Your task to perform on an android device: Go to notification settings Image 0: 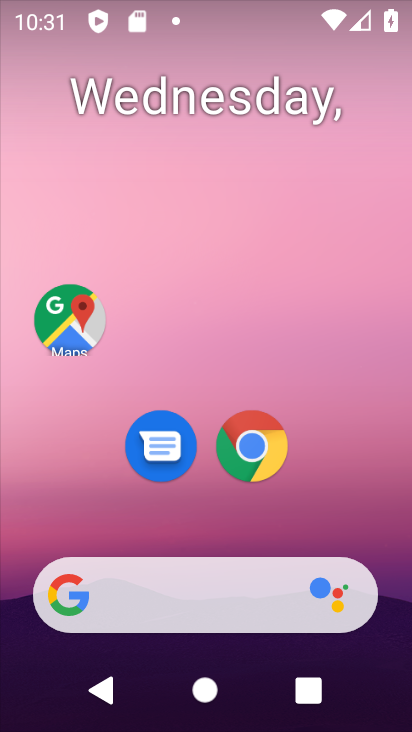
Step 0: drag from (95, 539) to (209, 85)
Your task to perform on an android device: Go to notification settings Image 1: 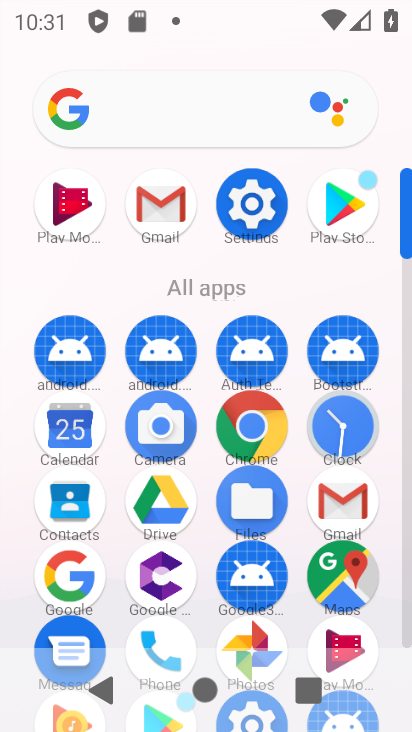
Step 1: drag from (196, 565) to (285, 283)
Your task to perform on an android device: Go to notification settings Image 2: 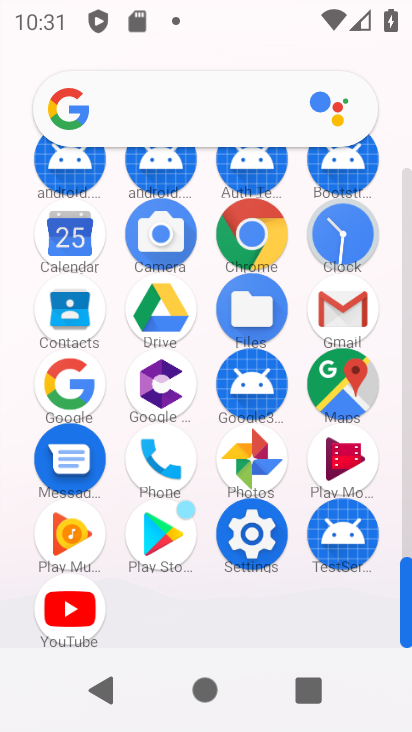
Step 2: click (269, 543)
Your task to perform on an android device: Go to notification settings Image 3: 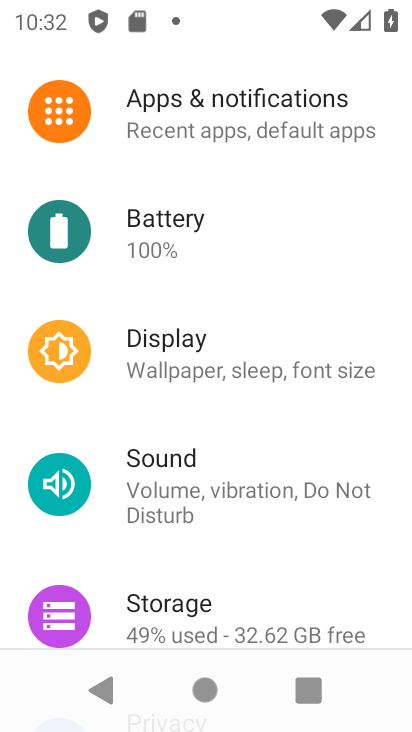
Step 3: click (257, 141)
Your task to perform on an android device: Go to notification settings Image 4: 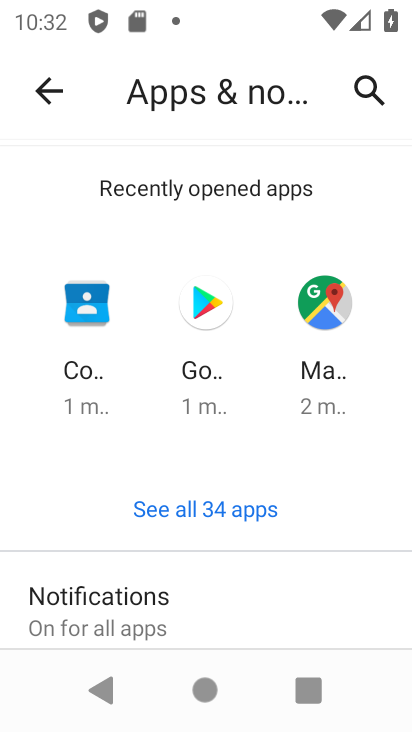
Step 4: click (197, 617)
Your task to perform on an android device: Go to notification settings Image 5: 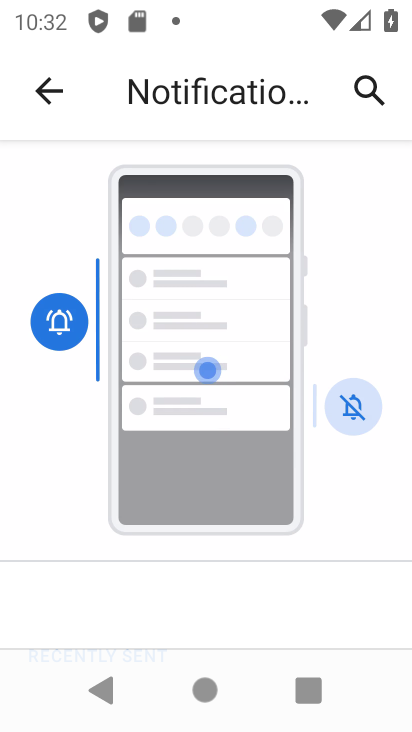
Step 5: task complete